Your task to perform on an android device: toggle notification dots Image 0: 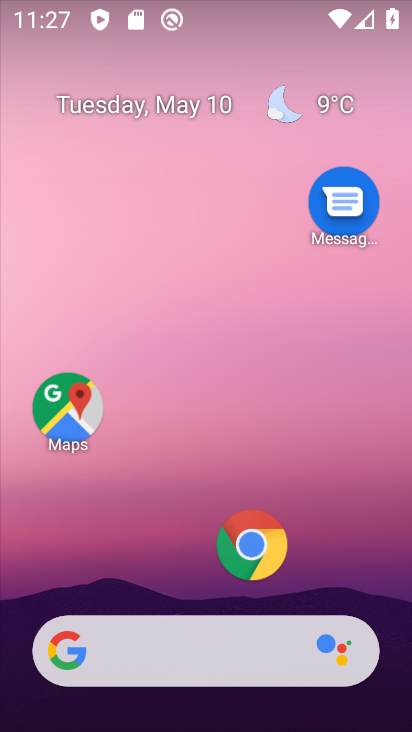
Step 0: drag from (150, 538) to (237, 39)
Your task to perform on an android device: toggle notification dots Image 1: 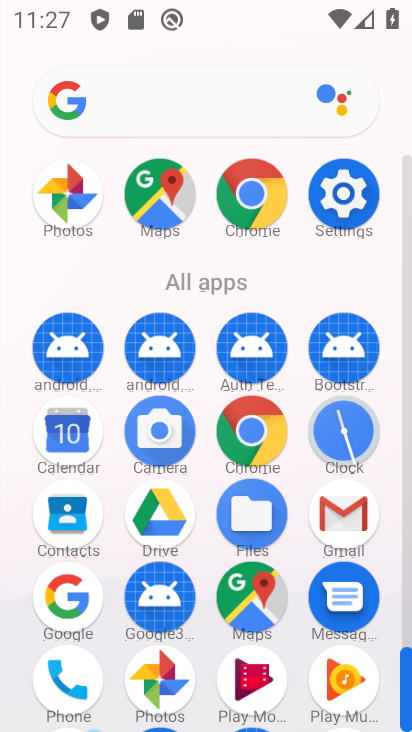
Step 1: click (342, 199)
Your task to perform on an android device: toggle notification dots Image 2: 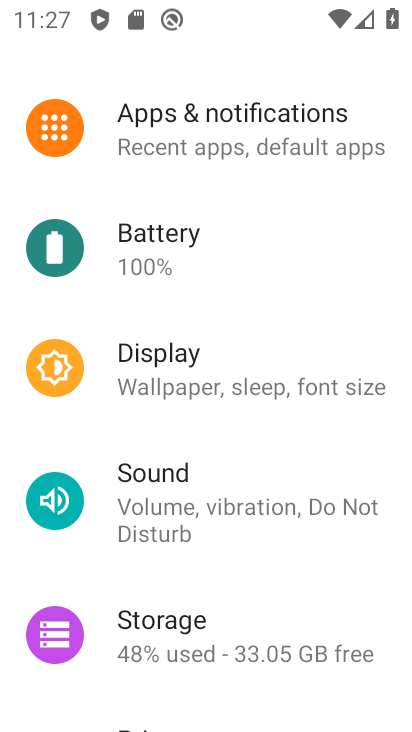
Step 2: click (249, 147)
Your task to perform on an android device: toggle notification dots Image 3: 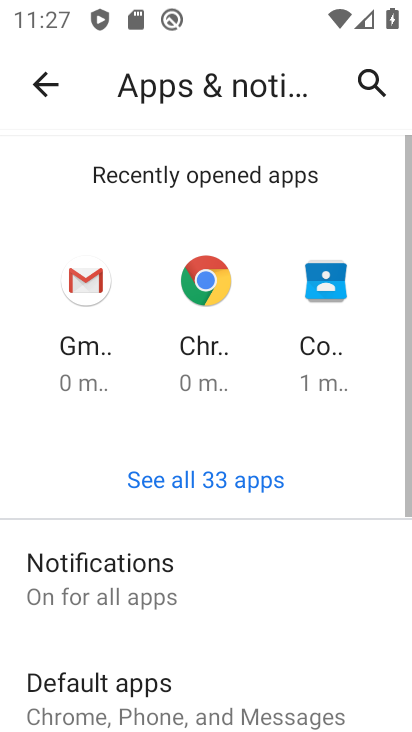
Step 3: click (210, 577)
Your task to perform on an android device: toggle notification dots Image 4: 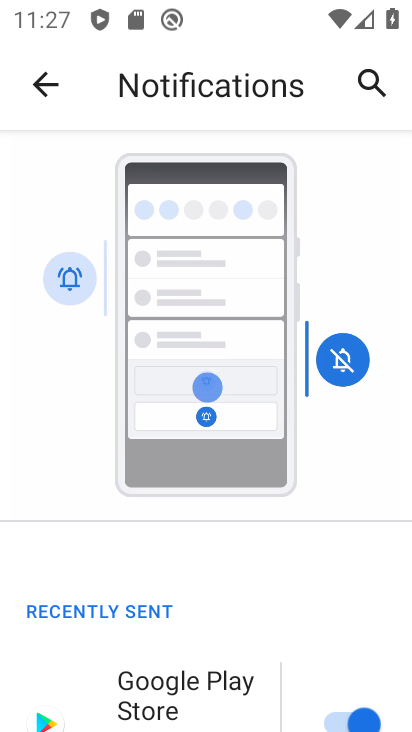
Step 4: drag from (161, 659) to (354, 95)
Your task to perform on an android device: toggle notification dots Image 5: 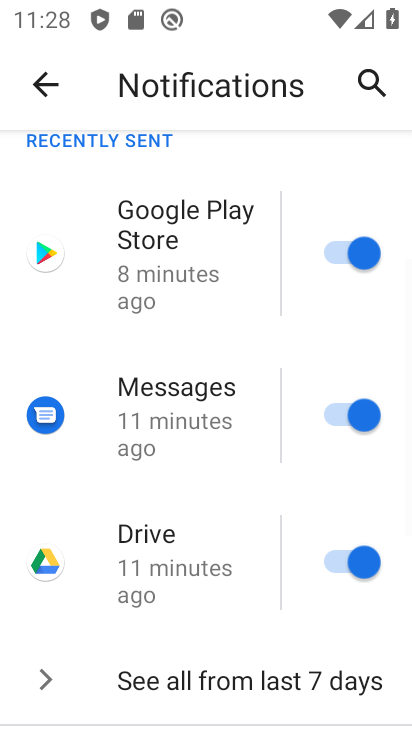
Step 5: drag from (123, 492) to (259, 185)
Your task to perform on an android device: toggle notification dots Image 6: 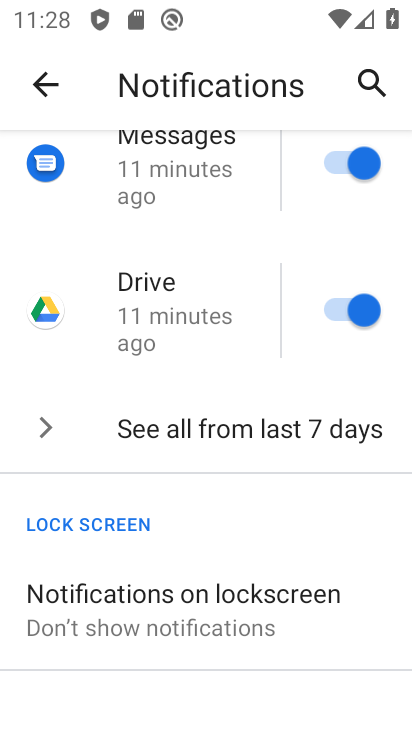
Step 6: drag from (134, 609) to (199, 362)
Your task to perform on an android device: toggle notification dots Image 7: 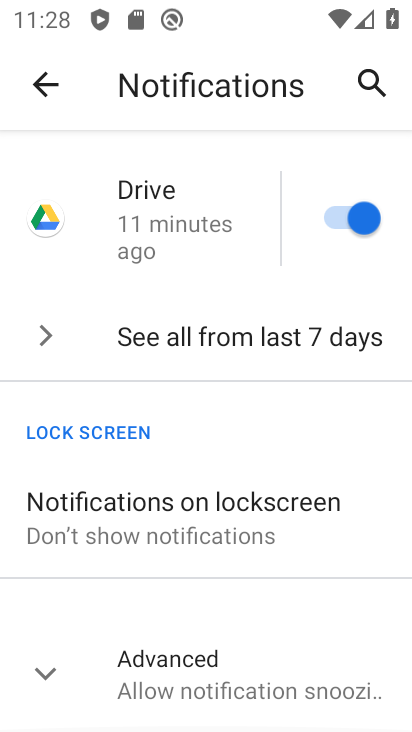
Step 7: click (170, 630)
Your task to perform on an android device: toggle notification dots Image 8: 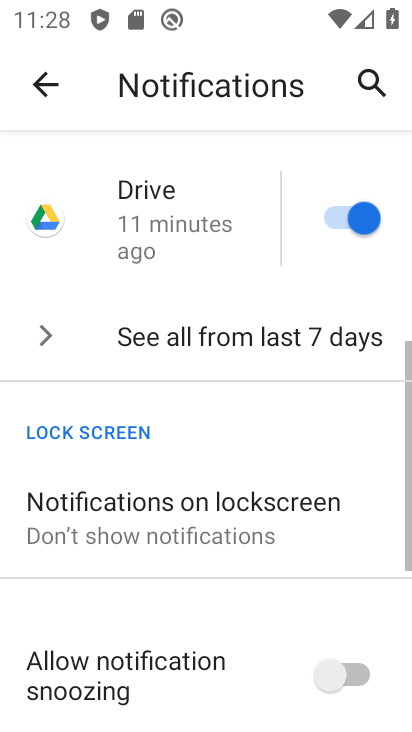
Step 8: drag from (172, 686) to (317, 289)
Your task to perform on an android device: toggle notification dots Image 9: 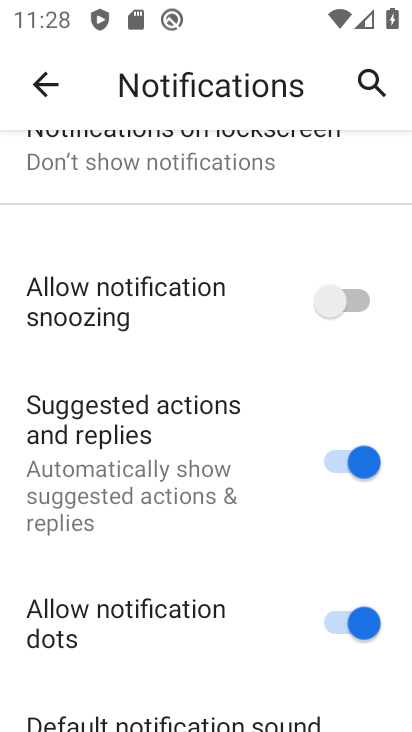
Step 9: drag from (127, 691) to (225, 423)
Your task to perform on an android device: toggle notification dots Image 10: 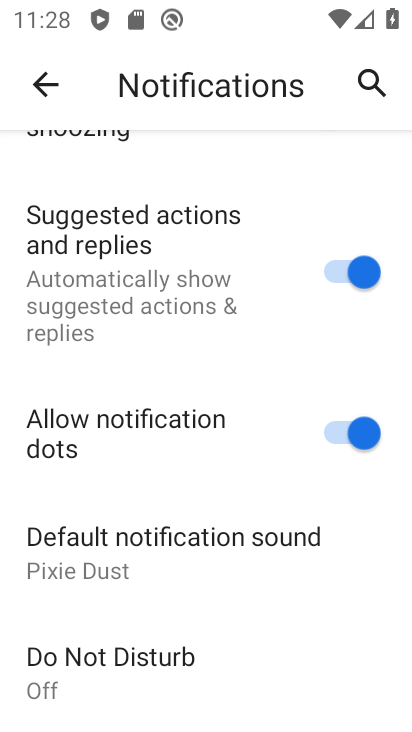
Step 10: click (341, 412)
Your task to perform on an android device: toggle notification dots Image 11: 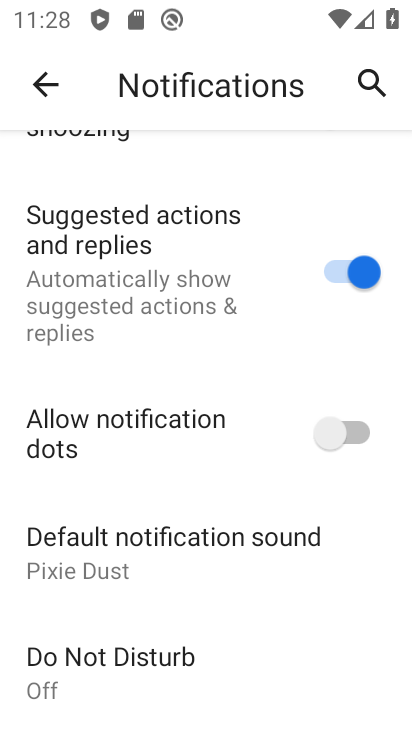
Step 11: task complete